Your task to perform on an android device: Open sound settings Image 0: 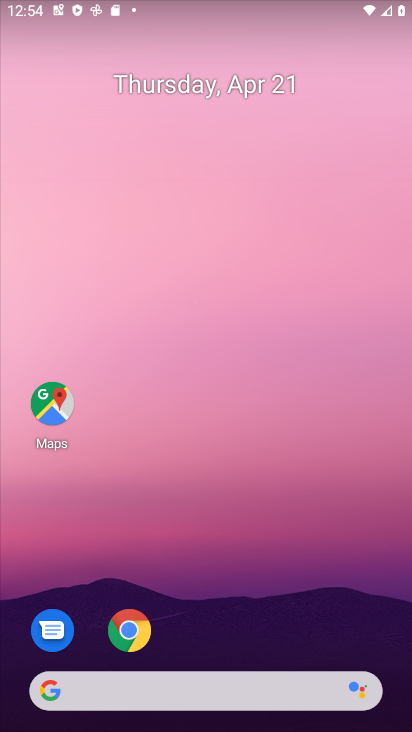
Step 0: drag from (261, 617) to (243, 93)
Your task to perform on an android device: Open sound settings Image 1: 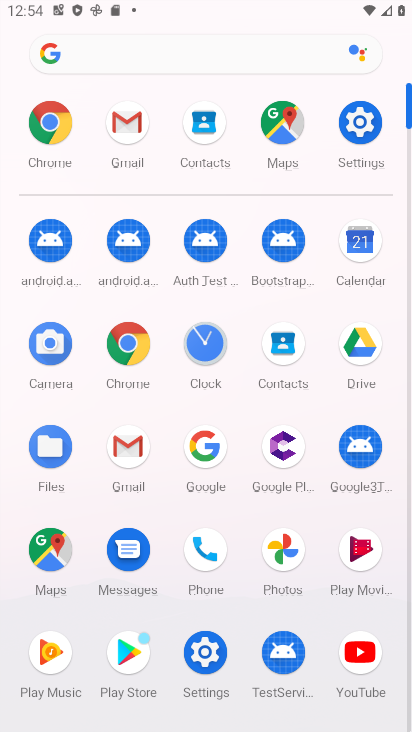
Step 1: click (350, 159)
Your task to perform on an android device: Open sound settings Image 2: 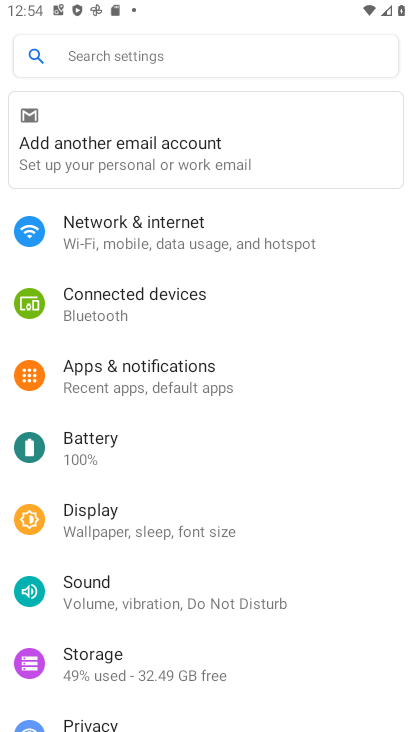
Step 2: click (109, 599)
Your task to perform on an android device: Open sound settings Image 3: 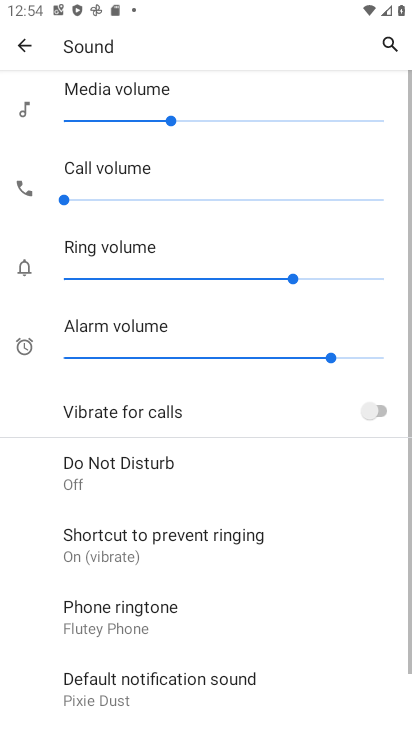
Step 3: task complete